Your task to perform on an android device: What's the weather going to be this weekend? Image 0: 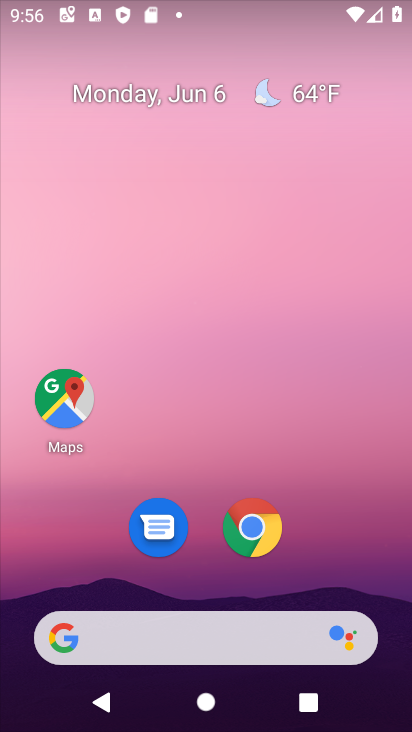
Step 0: drag from (219, 514) to (254, 193)
Your task to perform on an android device: What's the weather going to be this weekend? Image 1: 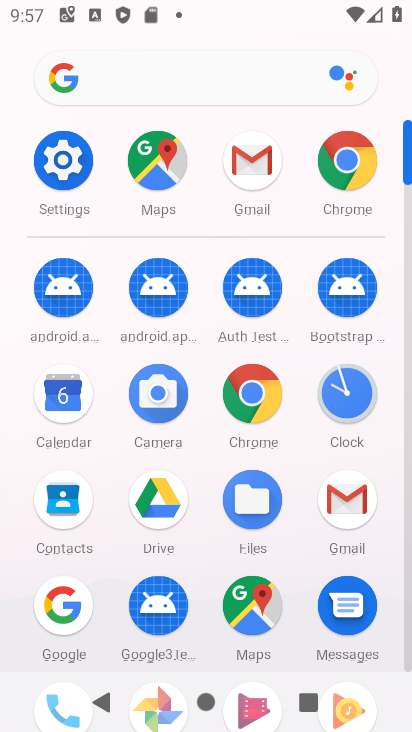
Step 1: click (67, 614)
Your task to perform on an android device: What's the weather going to be this weekend? Image 2: 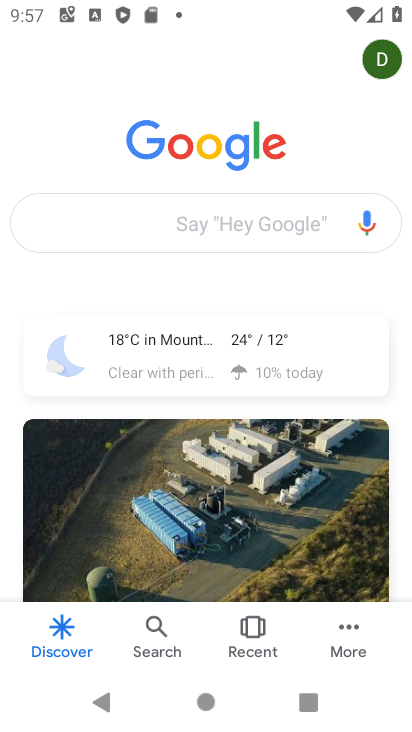
Step 2: click (245, 223)
Your task to perform on an android device: What's the weather going to be this weekend? Image 3: 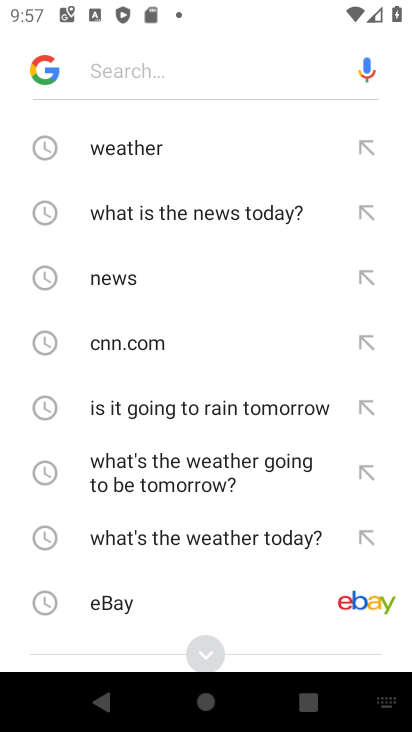
Step 3: click (184, 138)
Your task to perform on an android device: What's the weather going to be this weekend? Image 4: 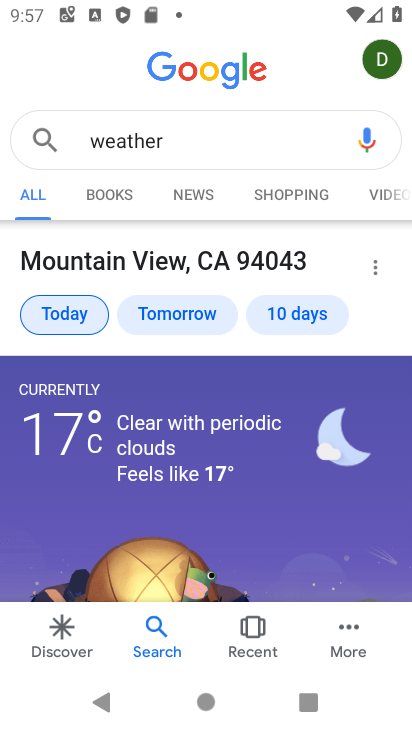
Step 4: click (294, 316)
Your task to perform on an android device: What's the weather going to be this weekend? Image 5: 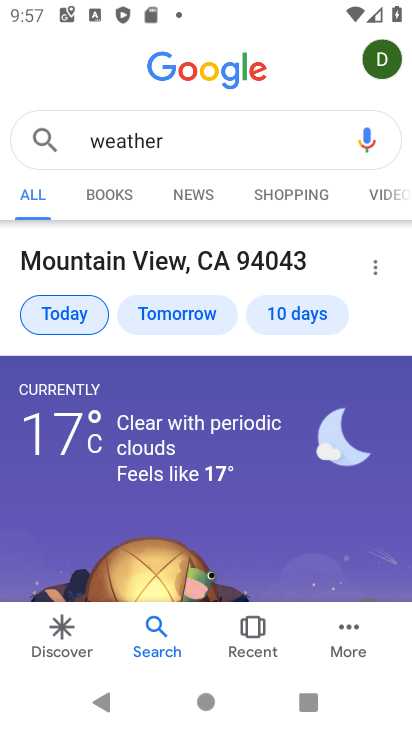
Step 5: click (293, 310)
Your task to perform on an android device: What's the weather going to be this weekend? Image 6: 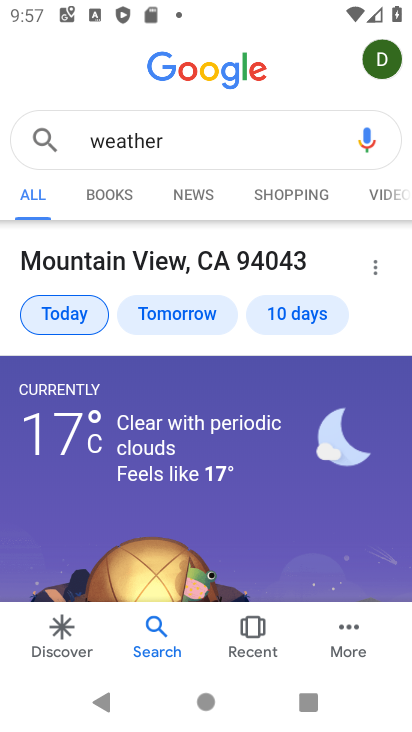
Step 6: click (292, 310)
Your task to perform on an android device: What's the weather going to be this weekend? Image 7: 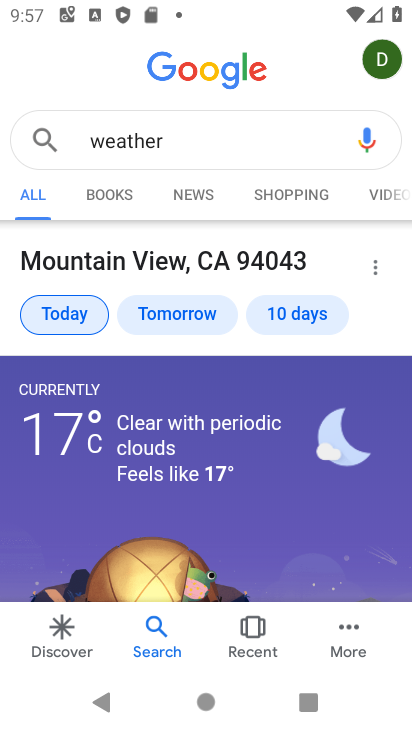
Step 7: click (292, 310)
Your task to perform on an android device: What's the weather going to be this weekend? Image 8: 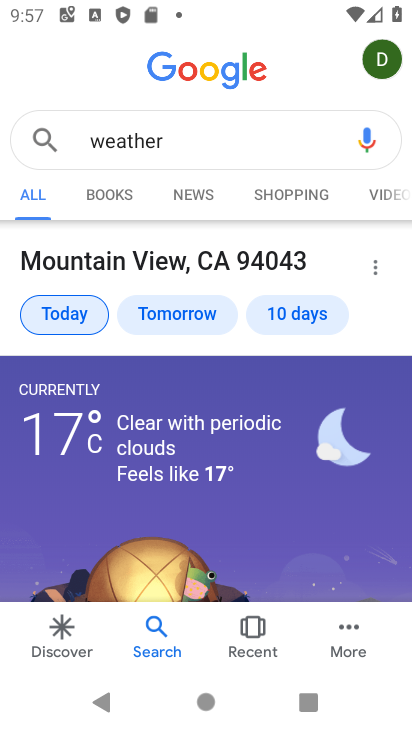
Step 8: click (292, 310)
Your task to perform on an android device: What's the weather going to be this weekend? Image 9: 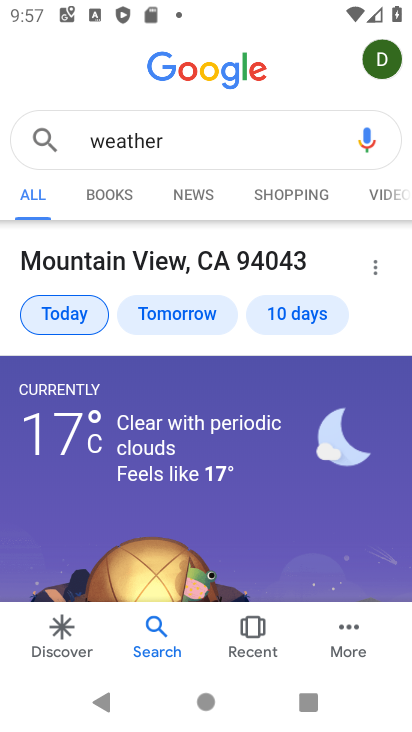
Step 9: click (292, 310)
Your task to perform on an android device: What's the weather going to be this weekend? Image 10: 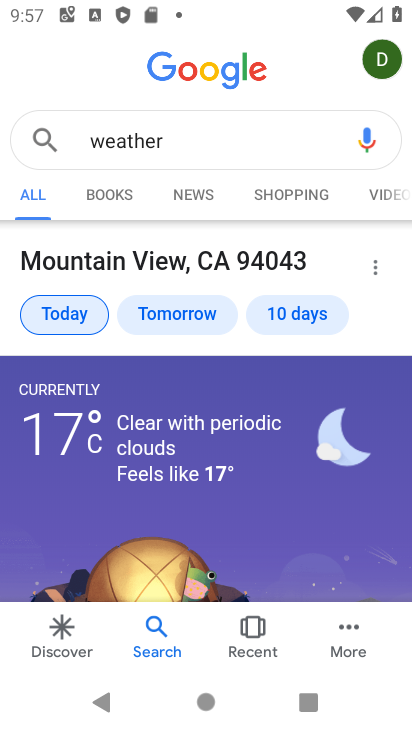
Step 10: click (292, 310)
Your task to perform on an android device: What's the weather going to be this weekend? Image 11: 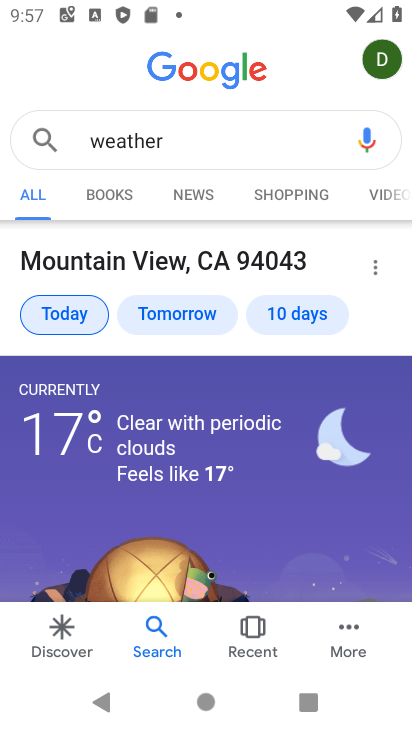
Step 11: click (292, 310)
Your task to perform on an android device: What's the weather going to be this weekend? Image 12: 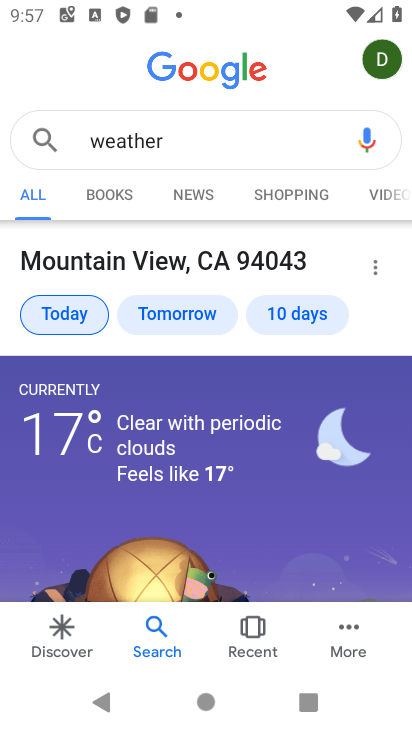
Step 12: click (292, 310)
Your task to perform on an android device: What's the weather going to be this weekend? Image 13: 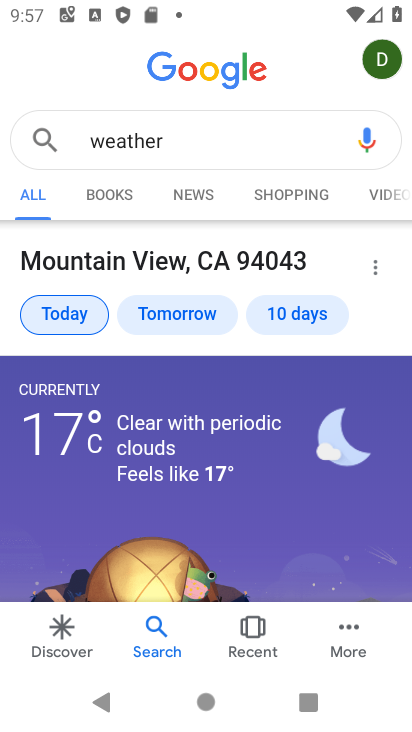
Step 13: click (165, 318)
Your task to perform on an android device: What's the weather going to be this weekend? Image 14: 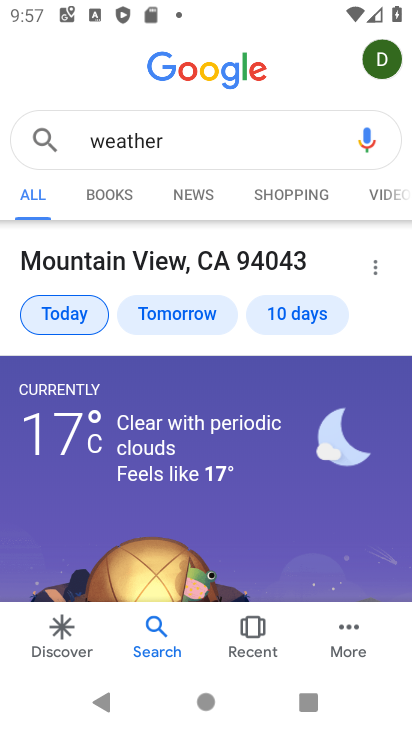
Step 14: click (165, 318)
Your task to perform on an android device: What's the weather going to be this weekend? Image 15: 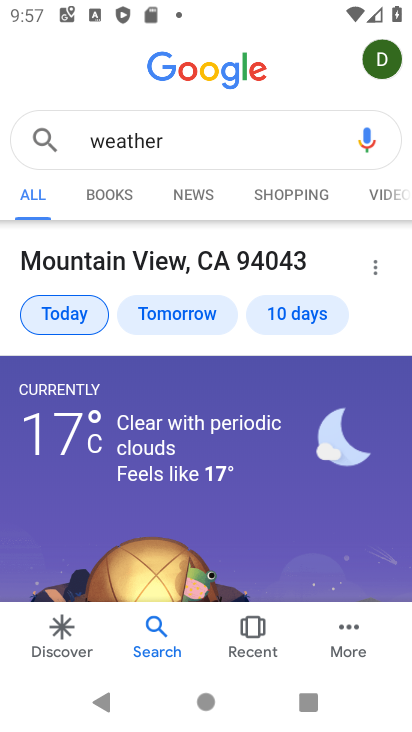
Step 15: click (165, 318)
Your task to perform on an android device: What's the weather going to be this weekend? Image 16: 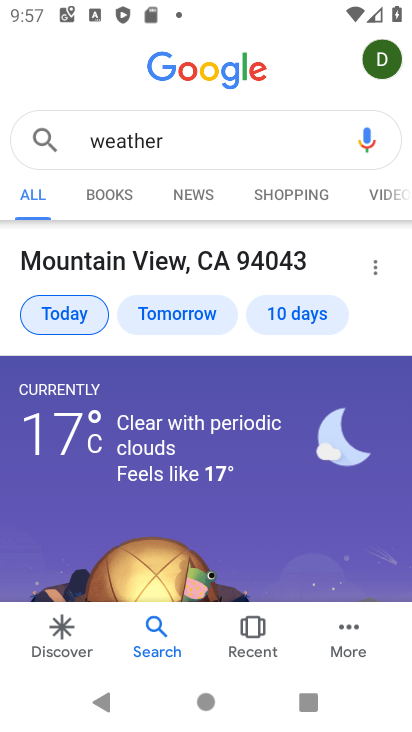
Step 16: click (165, 318)
Your task to perform on an android device: What's the weather going to be this weekend? Image 17: 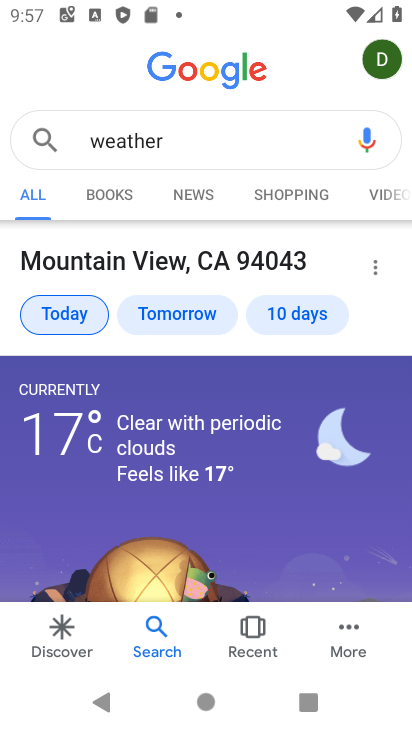
Step 17: click (213, 134)
Your task to perform on an android device: What's the weather going to be this weekend? Image 18: 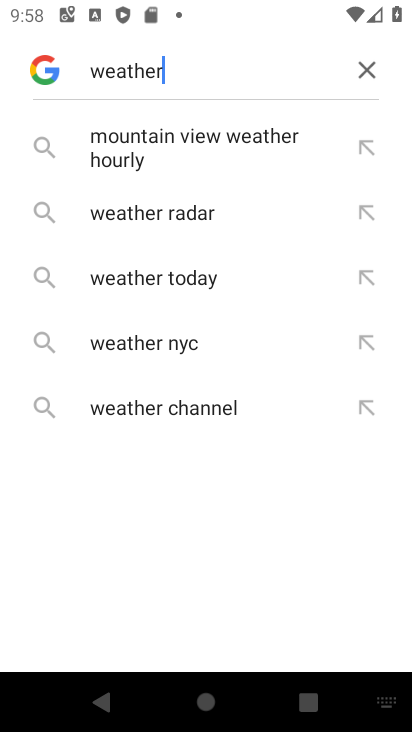
Step 18: type " weekend"
Your task to perform on an android device: What's the weather going to be this weekend? Image 19: 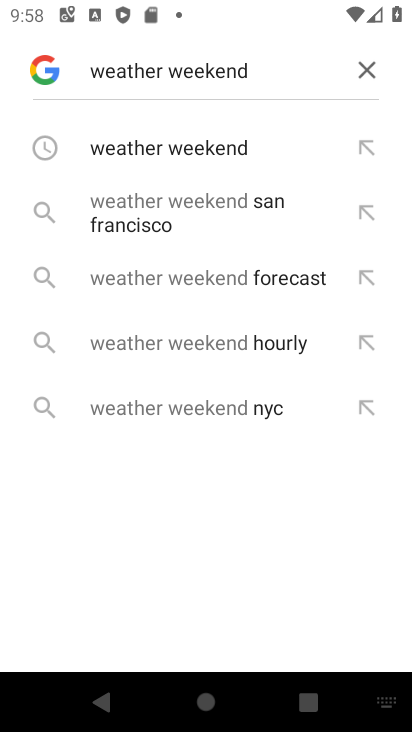
Step 19: click (201, 149)
Your task to perform on an android device: What's the weather going to be this weekend? Image 20: 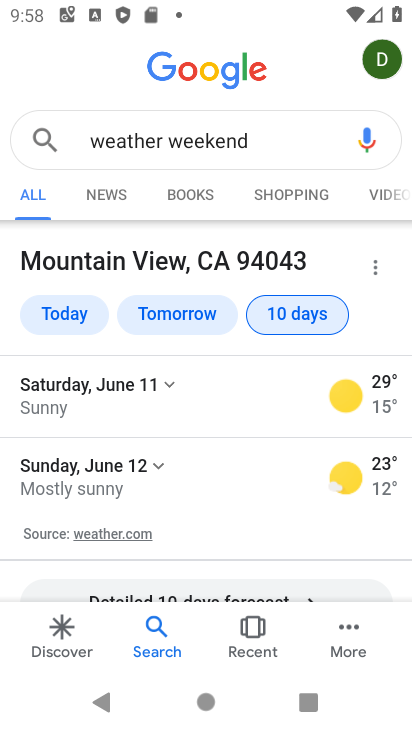
Step 20: task complete